Your task to perform on an android device: change the clock style Image 0: 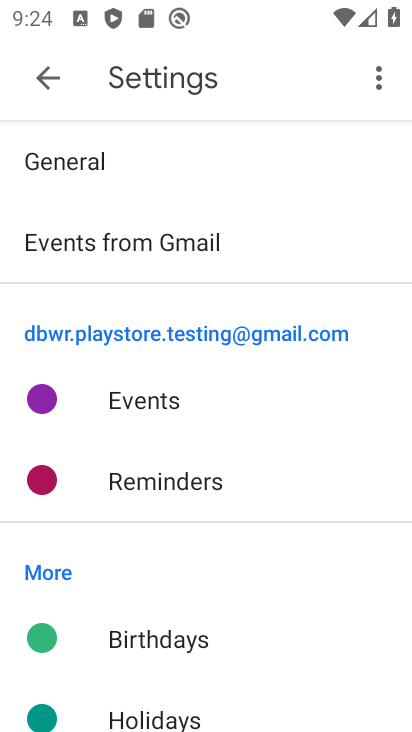
Step 0: press home button
Your task to perform on an android device: change the clock style Image 1: 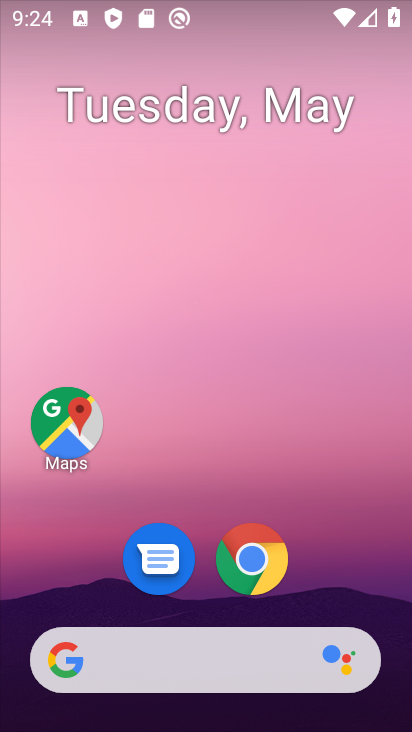
Step 1: drag from (199, 680) to (241, 207)
Your task to perform on an android device: change the clock style Image 2: 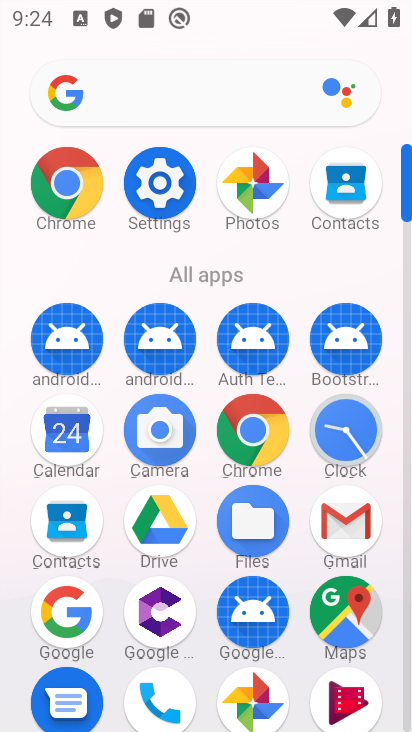
Step 2: click (346, 425)
Your task to perform on an android device: change the clock style Image 3: 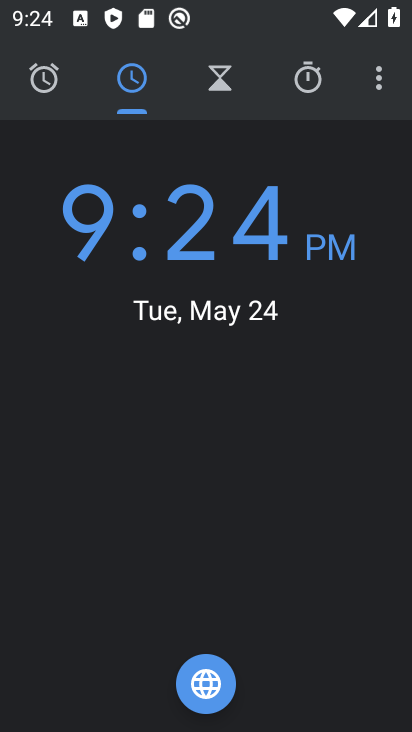
Step 3: click (368, 89)
Your task to perform on an android device: change the clock style Image 4: 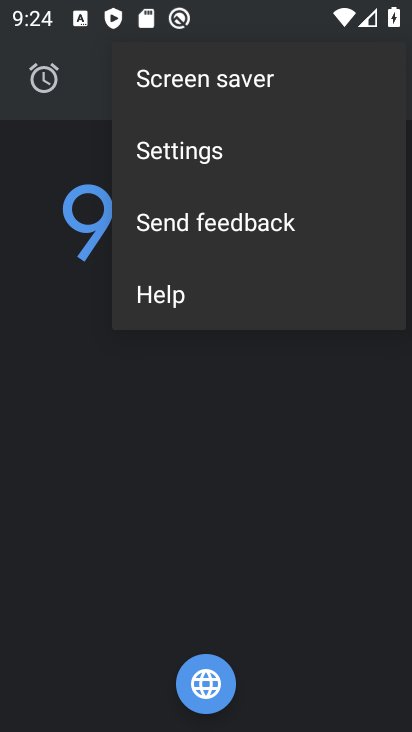
Step 4: click (209, 146)
Your task to perform on an android device: change the clock style Image 5: 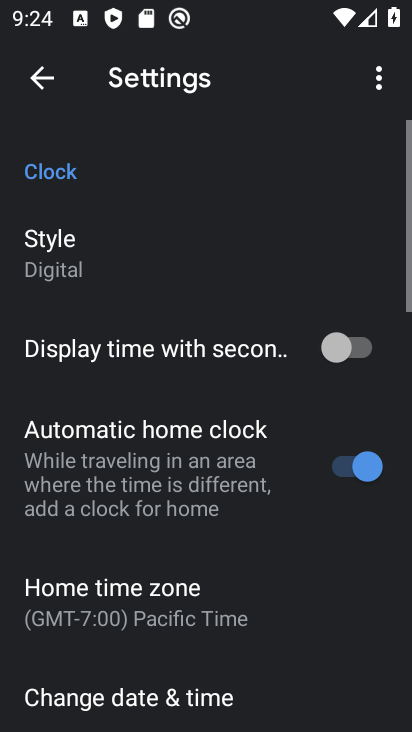
Step 5: click (104, 261)
Your task to perform on an android device: change the clock style Image 6: 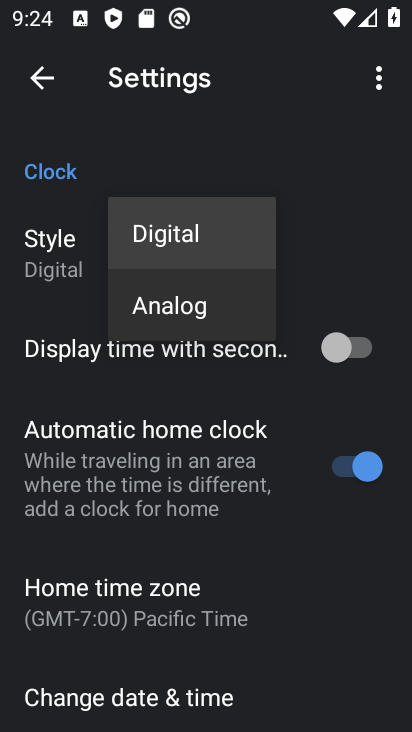
Step 6: click (156, 310)
Your task to perform on an android device: change the clock style Image 7: 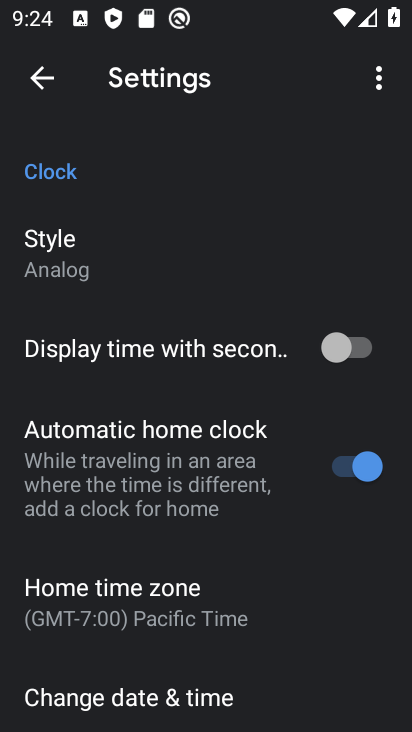
Step 7: task complete